Your task to perform on an android device: add a contact in the contacts app Image 0: 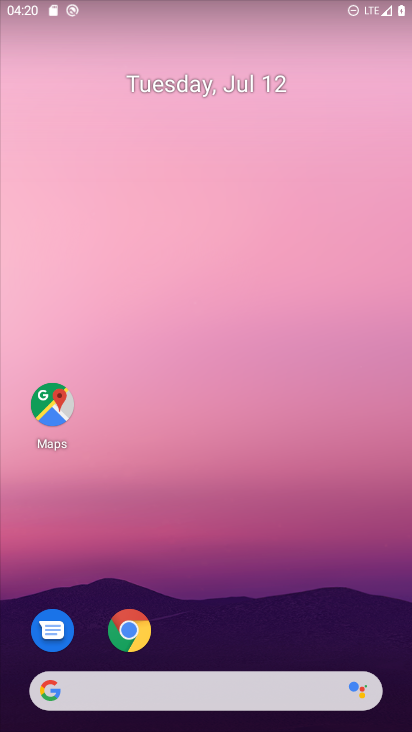
Step 0: drag from (303, 655) to (271, 14)
Your task to perform on an android device: add a contact in the contacts app Image 1: 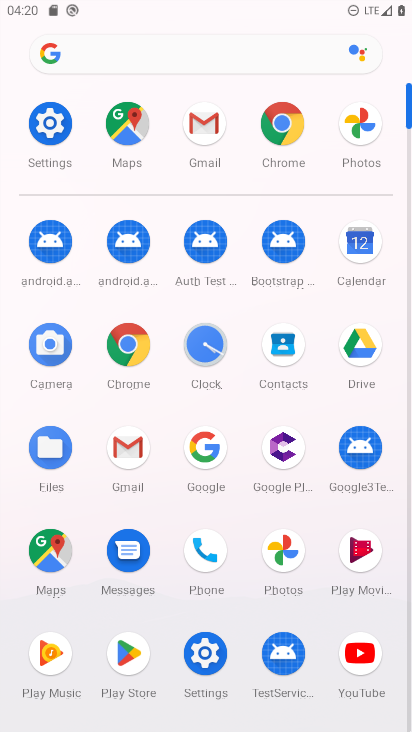
Step 1: click (289, 351)
Your task to perform on an android device: add a contact in the contacts app Image 2: 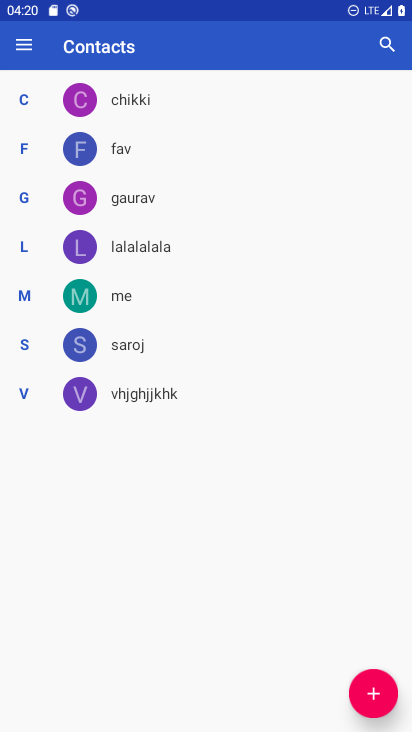
Step 2: click (378, 690)
Your task to perform on an android device: add a contact in the contacts app Image 3: 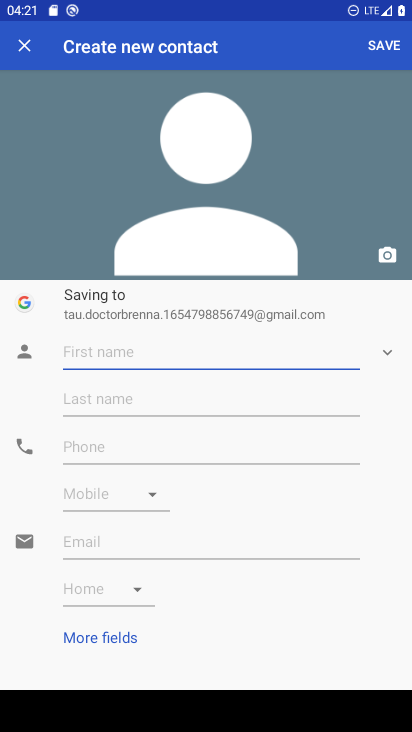
Step 3: type "soni"
Your task to perform on an android device: add a contact in the contacts app Image 4: 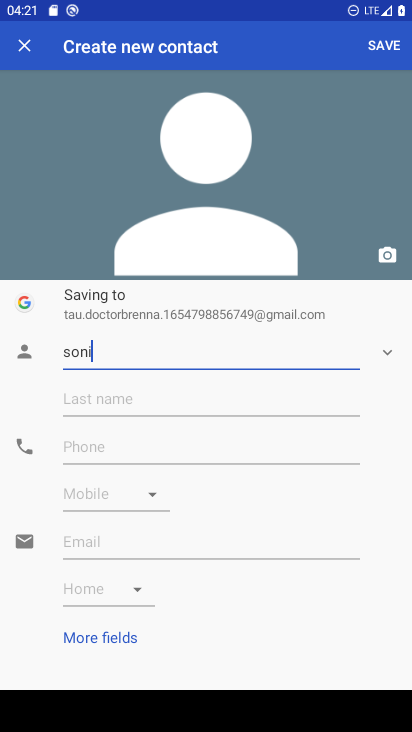
Step 4: click (202, 462)
Your task to perform on an android device: add a contact in the contacts app Image 5: 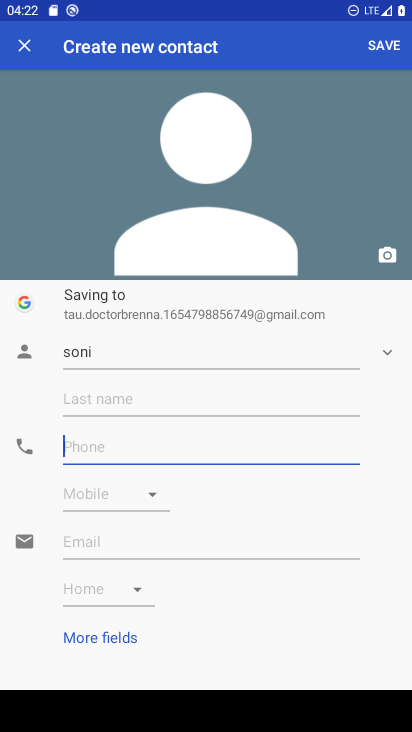
Step 5: type "98768766778"
Your task to perform on an android device: add a contact in the contacts app Image 6: 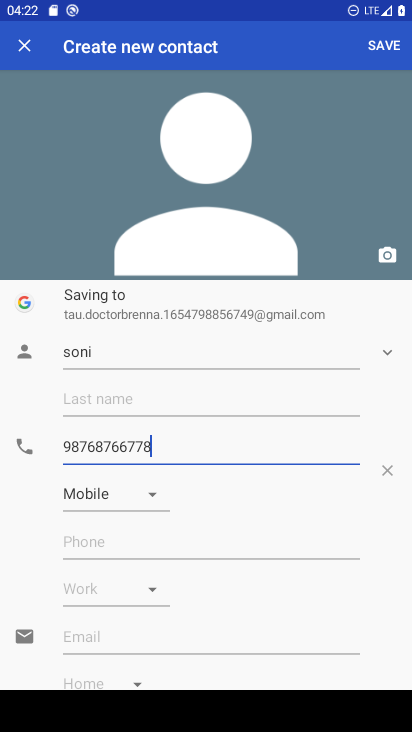
Step 6: click (390, 54)
Your task to perform on an android device: add a contact in the contacts app Image 7: 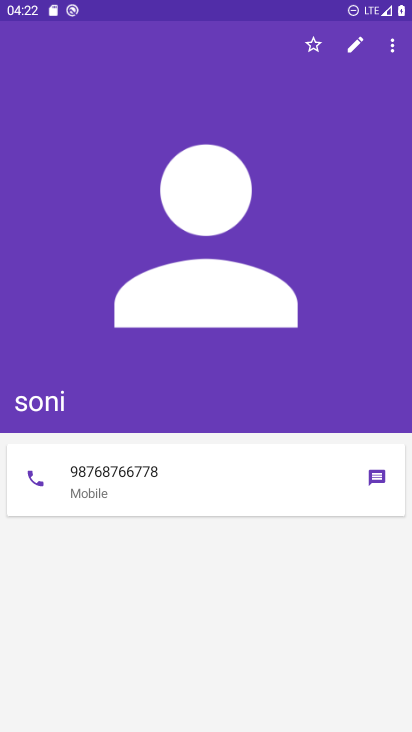
Step 7: task complete